Your task to perform on an android device: turn on the 12-hour format for clock Image 0: 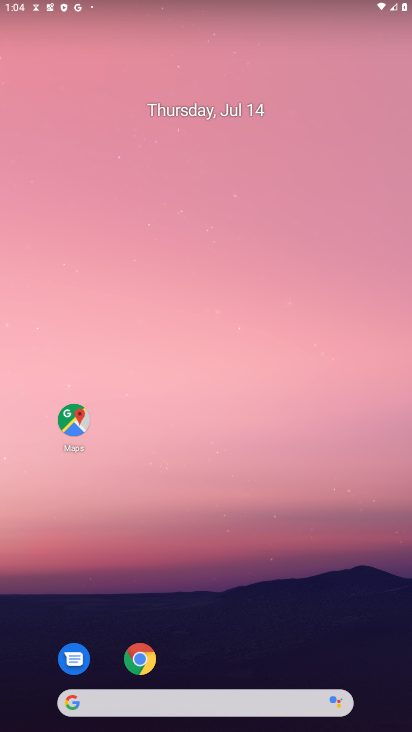
Step 0: drag from (26, 692) to (256, 154)
Your task to perform on an android device: turn on the 12-hour format for clock Image 1: 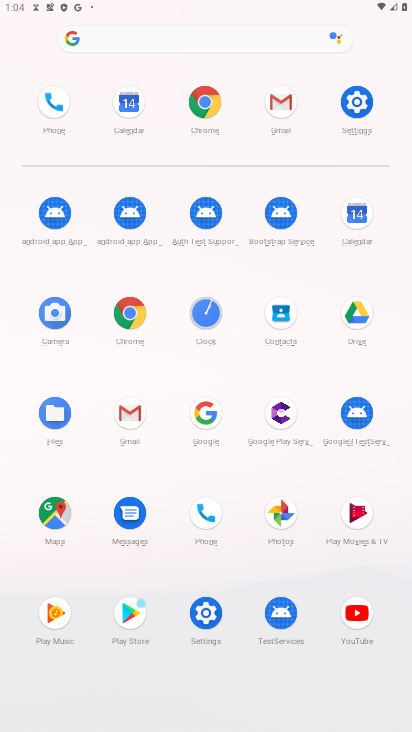
Step 1: click (213, 321)
Your task to perform on an android device: turn on the 12-hour format for clock Image 2: 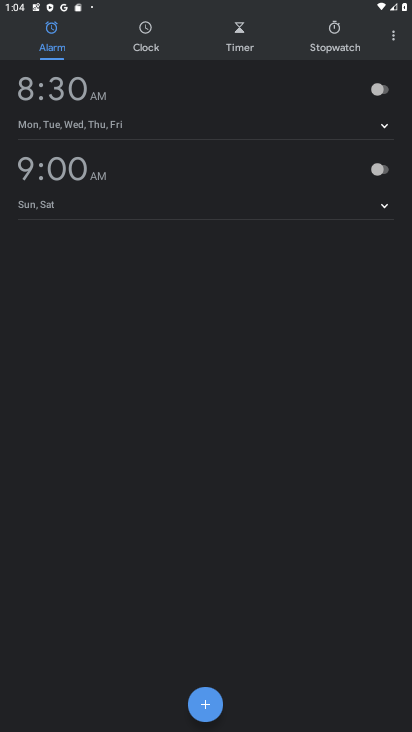
Step 2: click (390, 38)
Your task to perform on an android device: turn on the 12-hour format for clock Image 3: 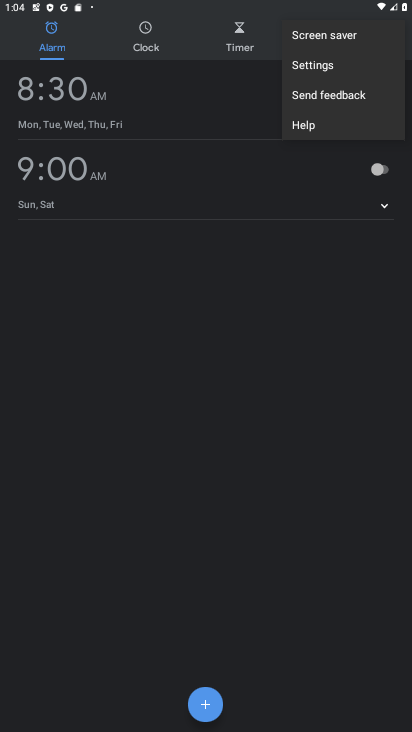
Step 3: click (312, 71)
Your task to perform on an android device: turn on the 12-hour format for clock Image 4: 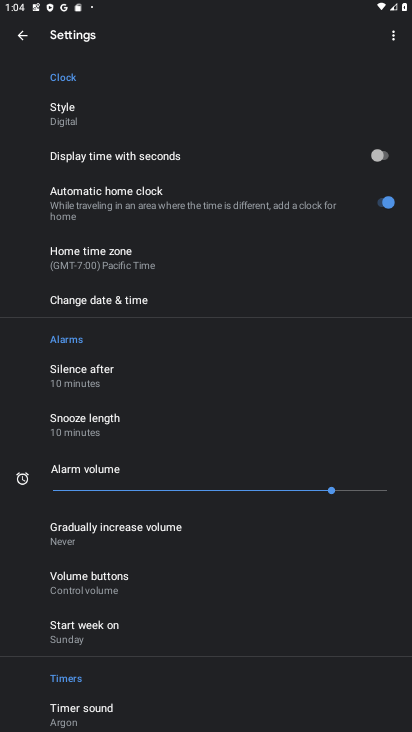
Step 4: click (117, 304)
Your task to perform on an android device: turn on the 12-hour format for clock Image 5: 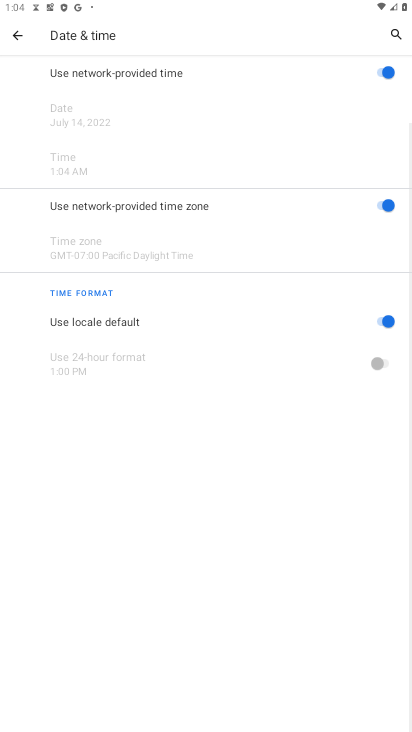
Step 5: click (396, 320)
Your task to perform on an android device: turn on the 12-hour format for clock Image 6: 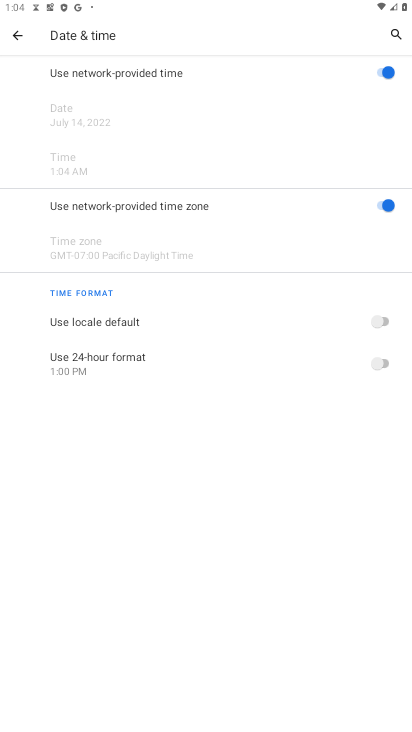
Step 6: click (378, 326)
Your task to perform on an android device: turn on the 12-hour format for clock Image 7: 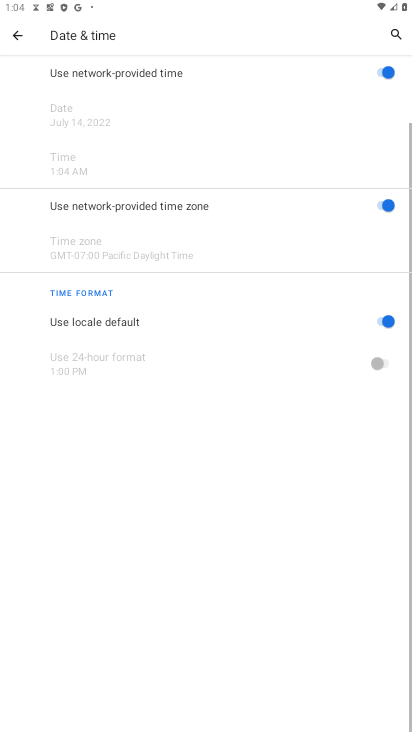
Step 7: task complete